Your task to perform on an android device: Is it going to rain this weekend? Image 0: 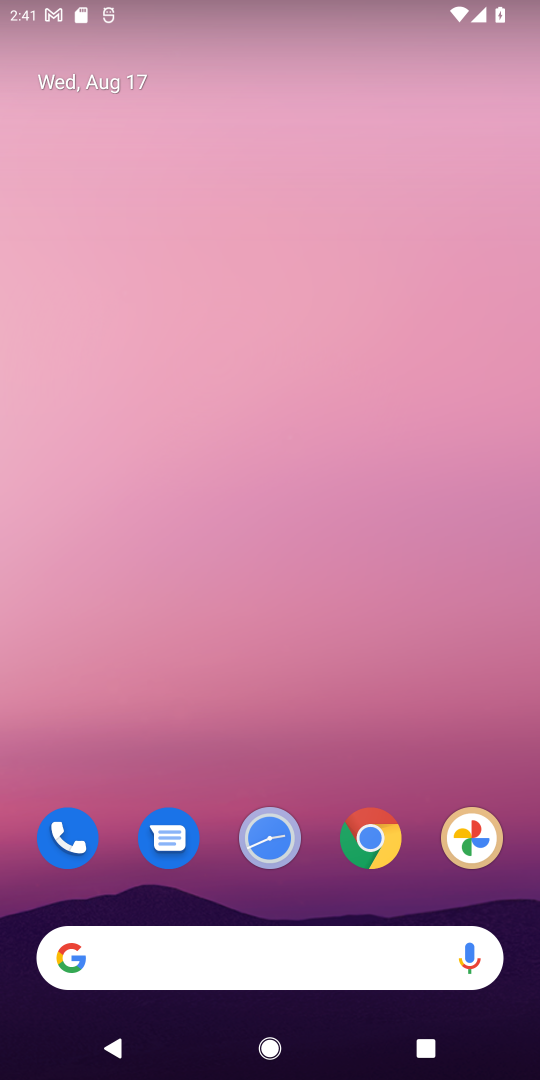
Step 0: drag from (225, 846) to (225, 317)
Your task to perform on an android device: Is it going to rain this weekend? Image 1: 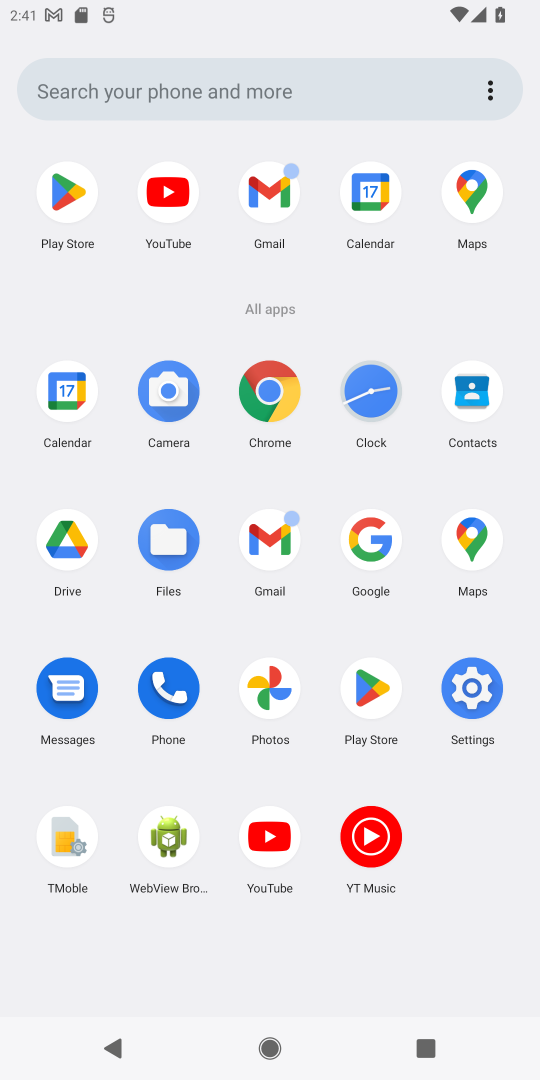
Step 1: click (365, 533)
Your task to perform on an android device: Is it going to rain this weekend? Image 2: 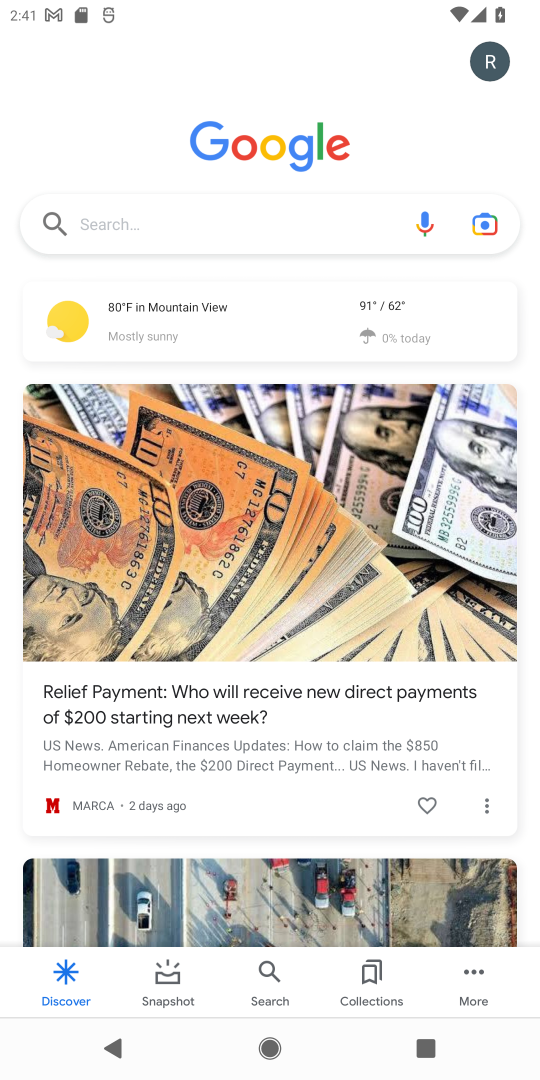
Step 2: click (137, 222)
Your task to perform on an android device: Is it going to rain this weekend? Image 3: 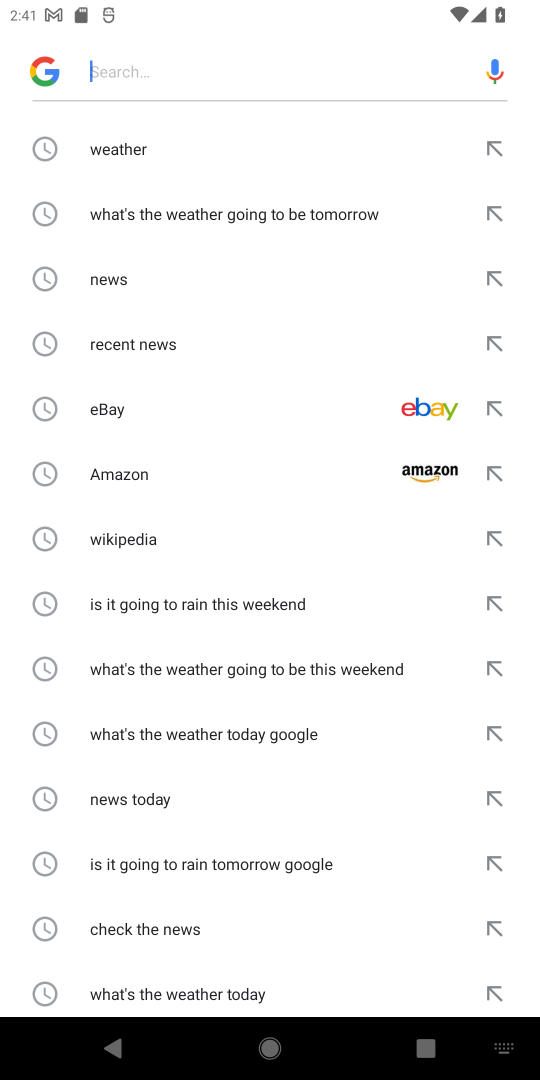
Step 3: click (176, 602)
Your task to perform on an android device: Is it going to rain this weekend? Image 4: 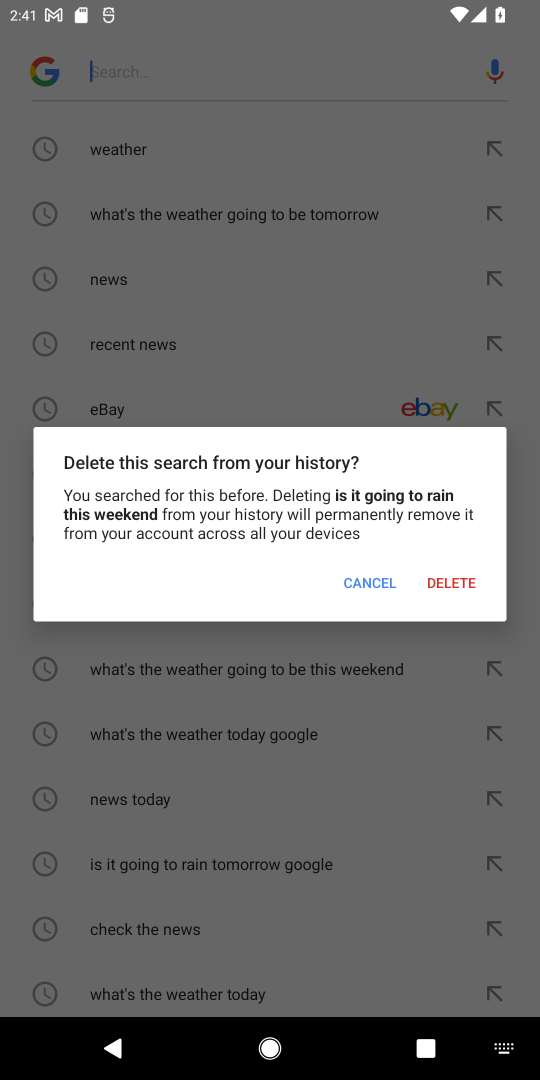
Step 4: click (351, 582)
Your task to perform on an android device: Is it going to rain this weekend? Image 5: 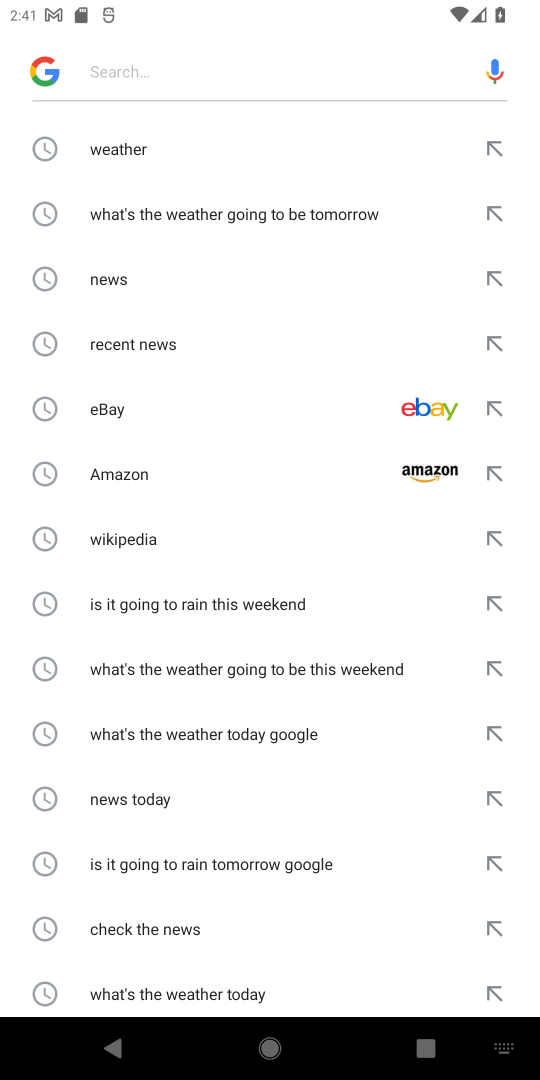
Step 5: click (149, 597)
Your task to perform on an android device: Is it going to rain this weekend? Image 6: 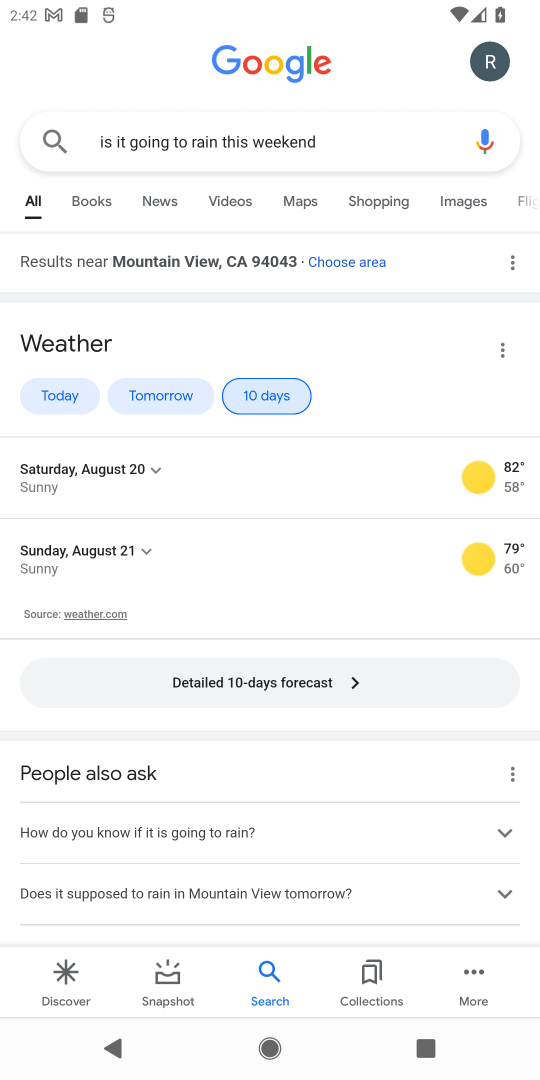
Step 6: click (269, 690)
Your task to perform on an android device: Is it going to rain this weekend? Image 7: 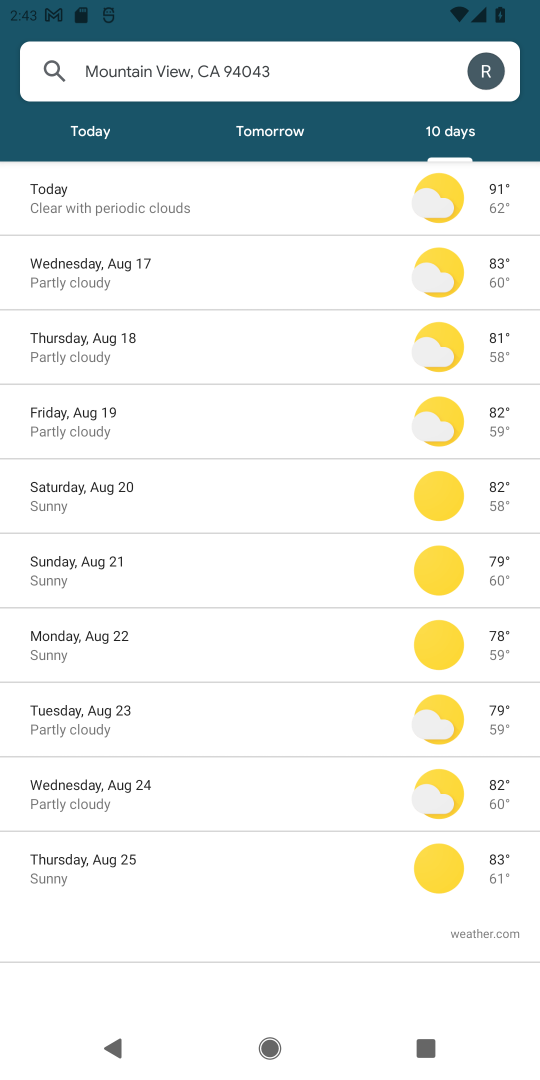
Step 7: task complete